Your task to perform on an android device: Open Google Image 0: 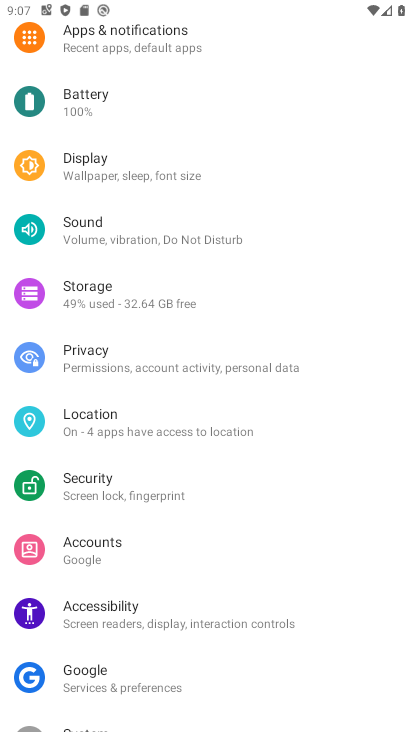
Step 0: press home button
Your task to perform on an android device: Open Google Image 1: 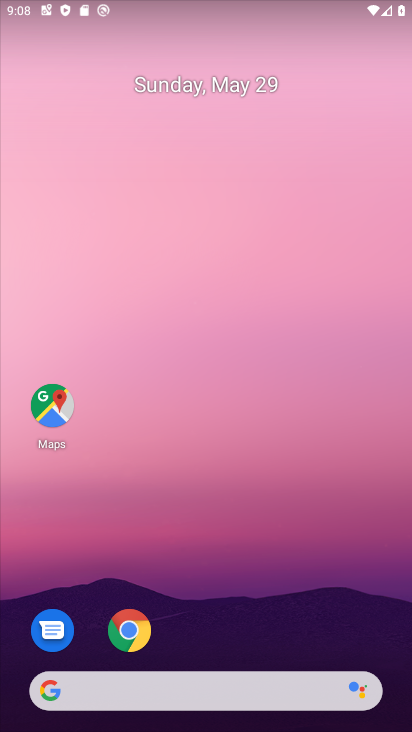
Step 1: drag from (266, 603) to (220, 246)
Your task to perform on an android device: Open Google Image 2: 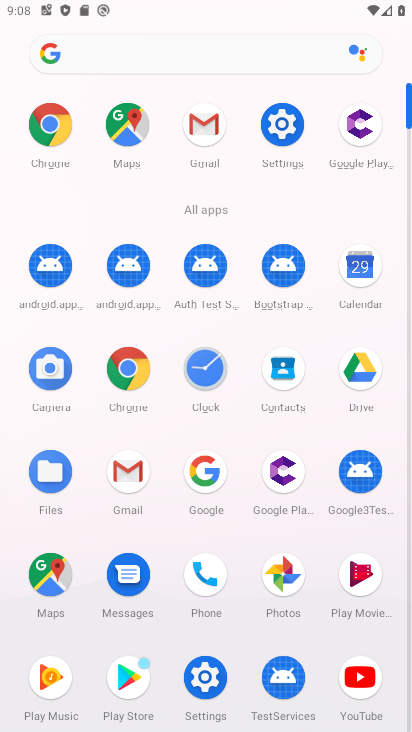
Step 2: click (215, 470)
Your task to perform on an android device: Open Google Image 3: 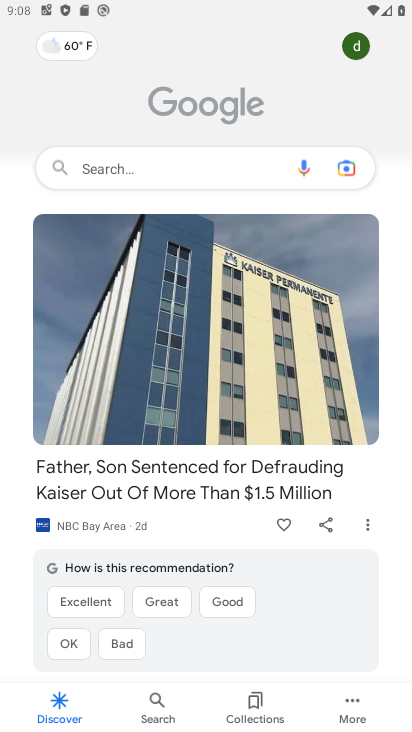
Step 3: task complete